Your task to perform on an android device: change the clock display to analog Image 0: 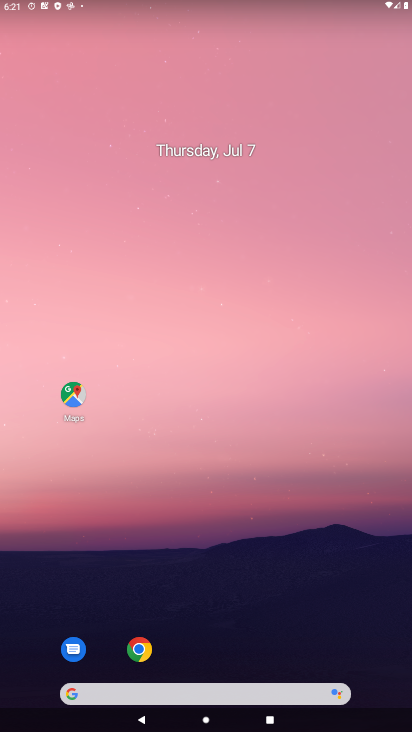
Step 0: press home button
Your task to perform on an android device: change the clock display to analog Image 1: 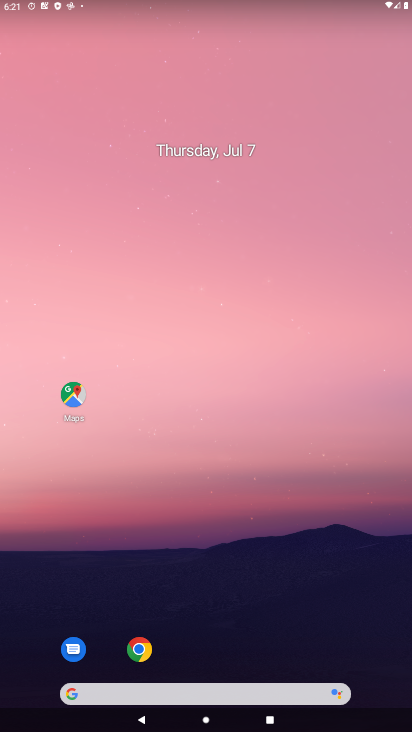
Step 1: drag from (357, 678) to (166, 19)
Your task to perform on an android device: change the clock display to analog Image 2: 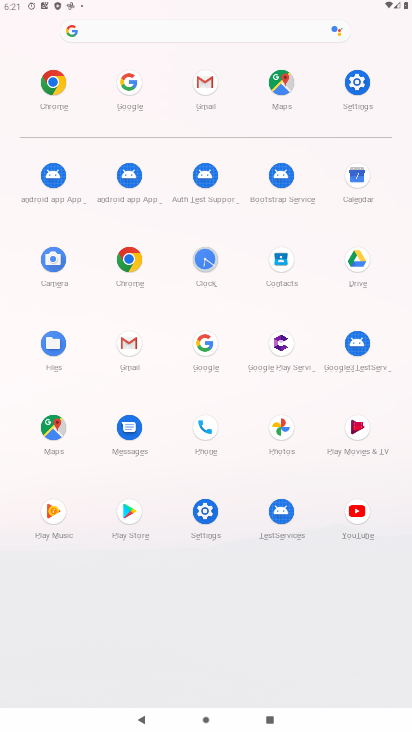
Step 2: click (212, 255)
Your task to perform on an android device: change the clock display to analog Image 3: 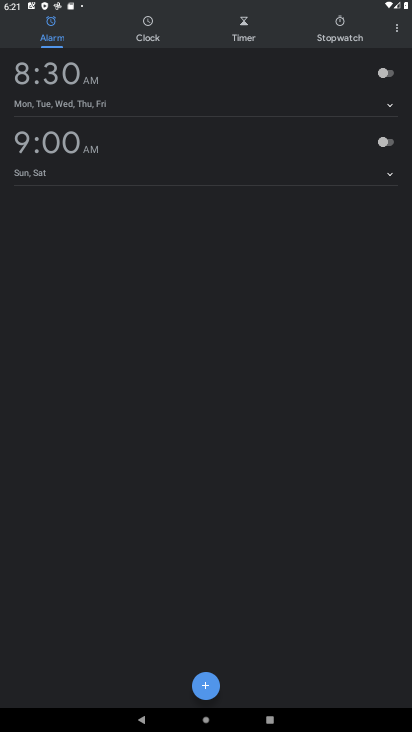
Step 3: click (396, 26)
Your task to perform on an android device: change the clock display to analog Image 4: 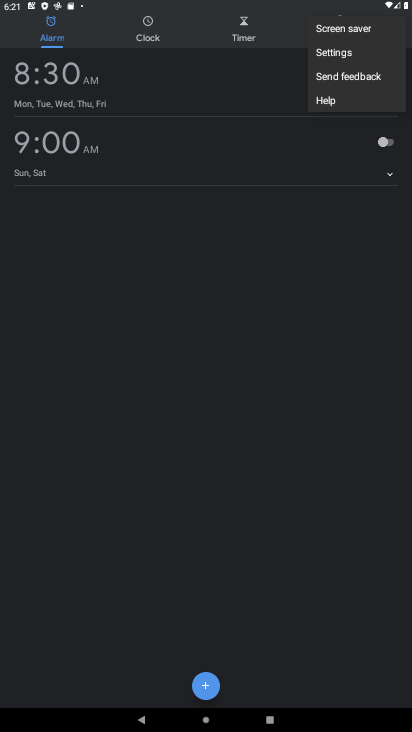
Step 4: click (352, 49)
Your task to perform on an android device: change the clock display to analog Image 5: 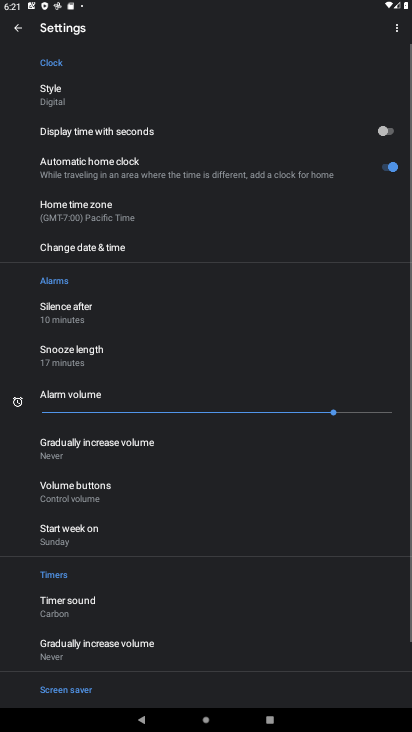
Step 5: click (81, 89)
Your task to perform on an android device: change the clock display to analog Image 6: 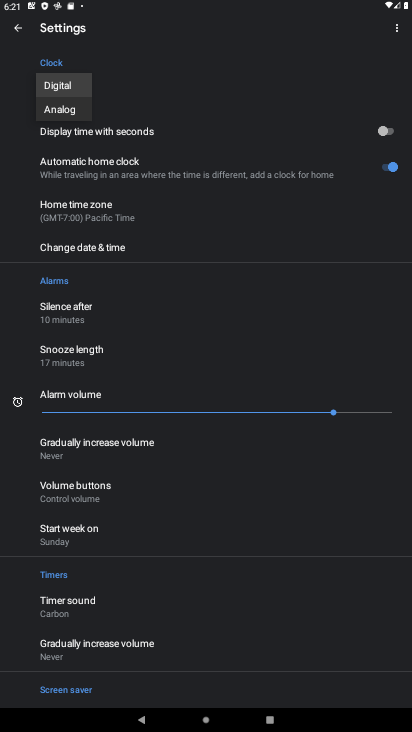
Step 6: click (67, 110)
Your task to perform on an android device: change the clock display to analog Image 7: 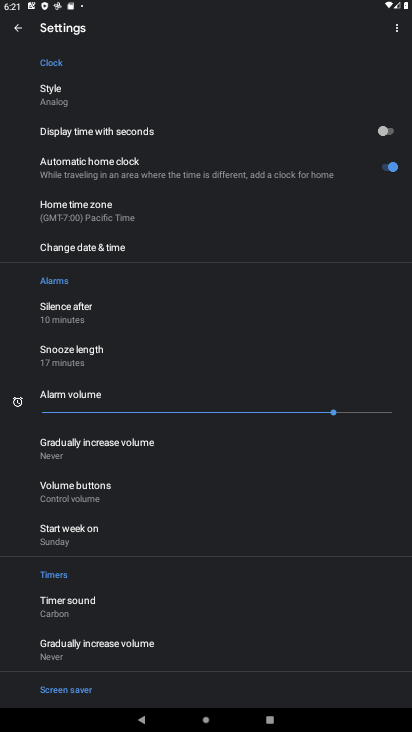
Step 7: task complete